Your task to perform on an android device: delete a single message in the gmail app Image 0: 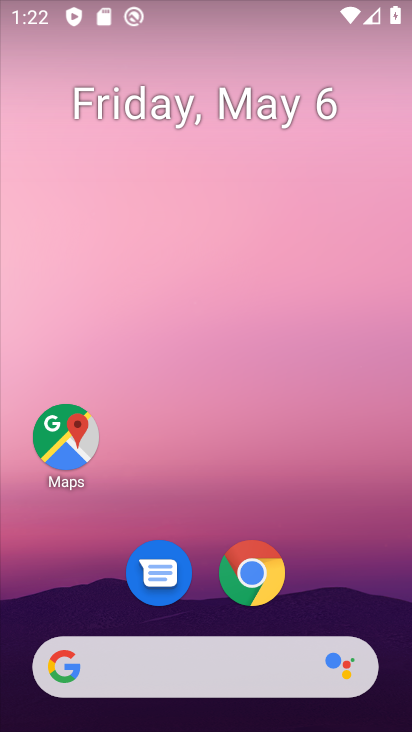
Step 0: drag from (207, 575) to (209, 148)
Your task to perform on an android device: delete a single message in the gmail app Image 1: 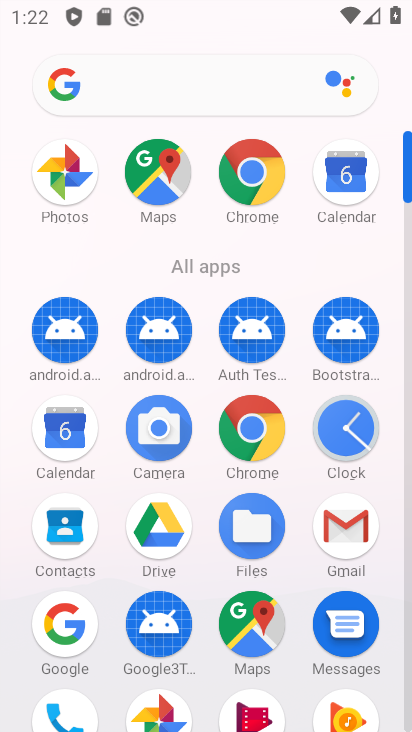
Step 1: click (340, 526)
Your task to perform on an android device: delete a single message in the gmail app Image 2: 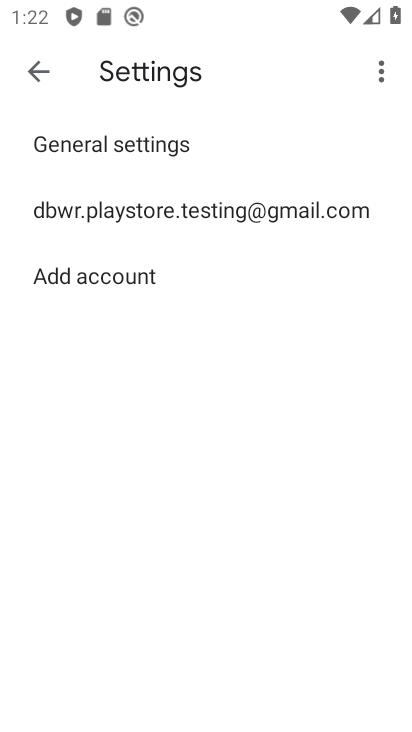
Step 2: click (41, 67)
Your task to perform on an android device: delete a single message in the gmail app Image 3: 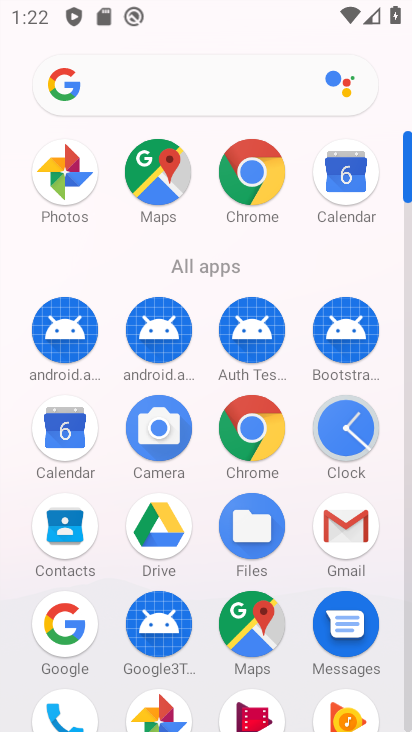
Step 3: click (347, 525)
Your task to perform on an android device: delete a single message in the gmail app Image 4: 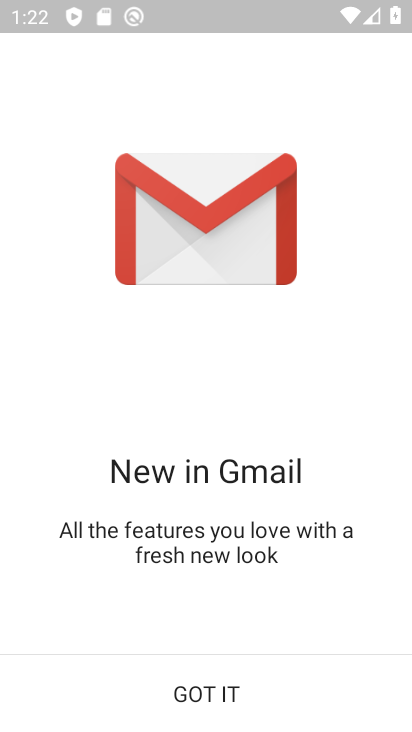
Step 4: click (216, 685)
Your task to perform on an android device: delete a single message in the gmail app Image 5: 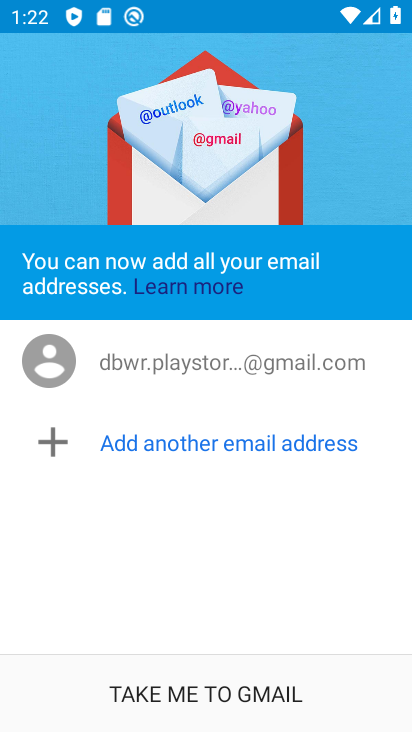
Step 5: click (216, 685)
Your task to perform on an android device: delete a single message in the gmail app Image 6: 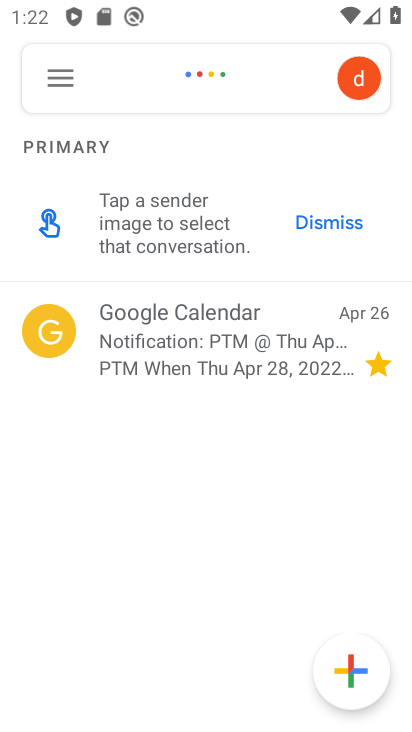
Step 6: click (198, 351)
Your task to perform on an android device: delete a single message in the gmail app Image 7: 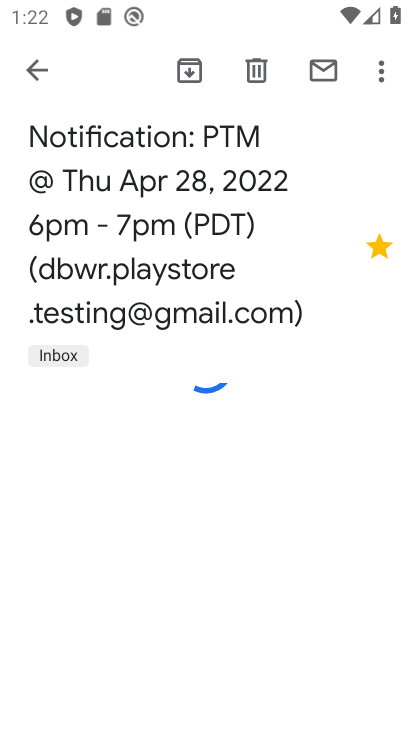
Step 7: click (260, 72)
Your task to perform on an android device: delete a single message in the gmail app Image 8: 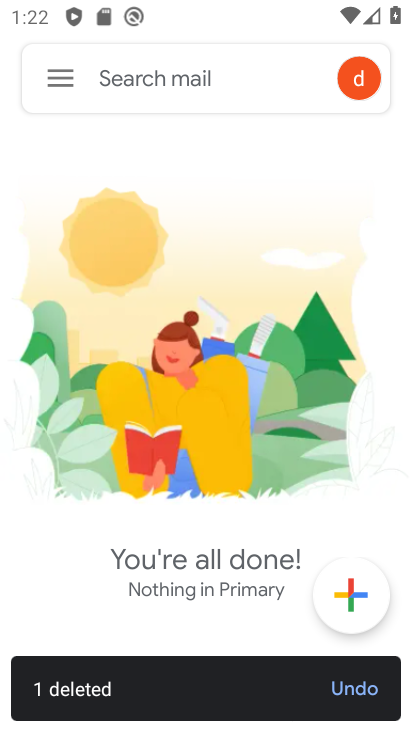
Step 8: task complete